Your task to perform on an android device: Open Google Image 0: 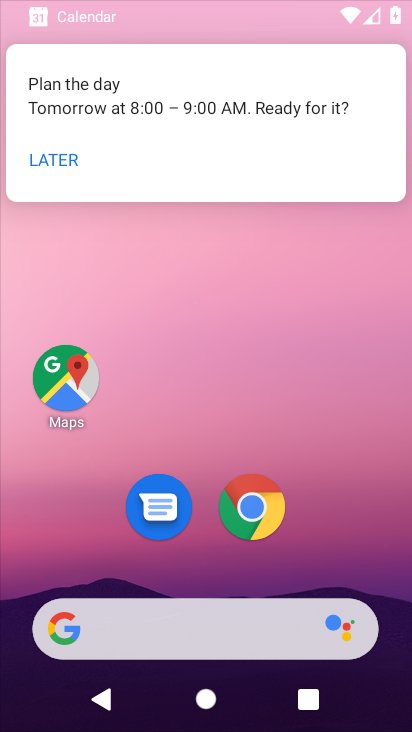
Step 0: drag from (295, 573) to (294, 233)
Your task to perform on an android device: Open Google Image 1: 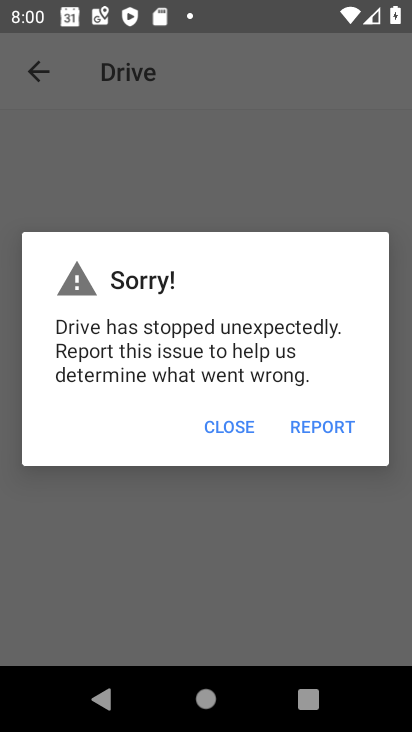
Step 1: click (222, 425)
Your task to perform on an android device: Open Google Image 2: 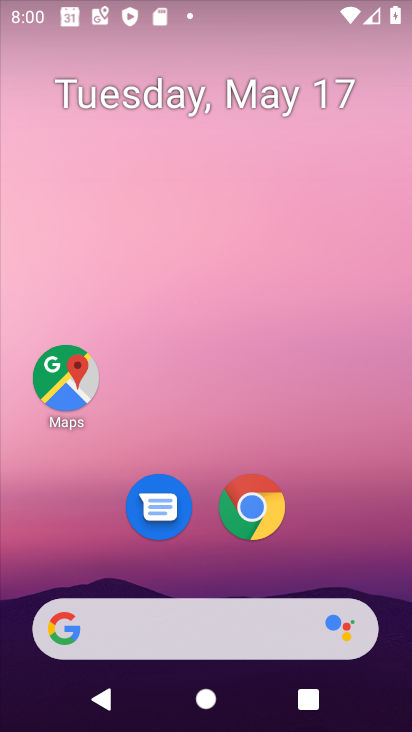
Step 2: drag from (335, 650) to (271, 135)
Your task to perform on an android device: Open Google Image 3: 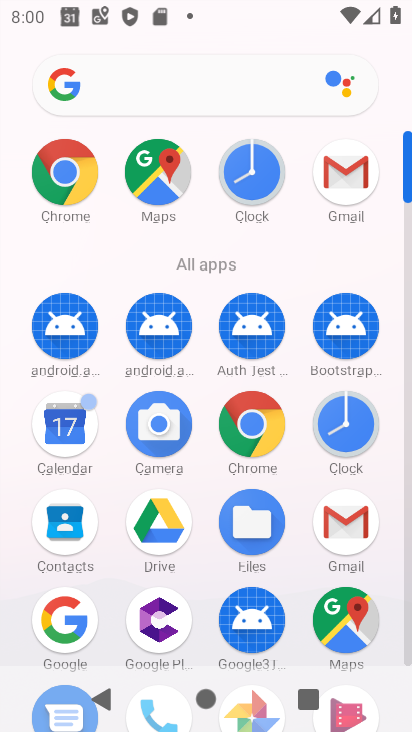
Step 3: click (69, 634)
Your task to perform on an android device: Open Google Image 4: 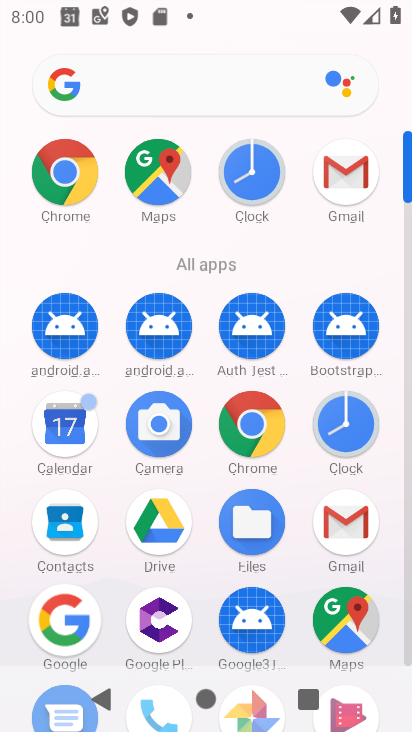
Step 4: click (85, 624)
Your task to perform on an android device: Open Google Image 5: 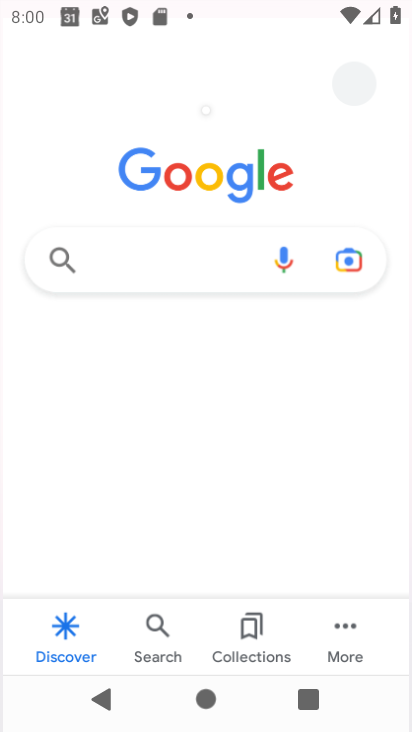
Step 5: click (91, 622)
Your task to perform on an android device: Open Google Image 6: 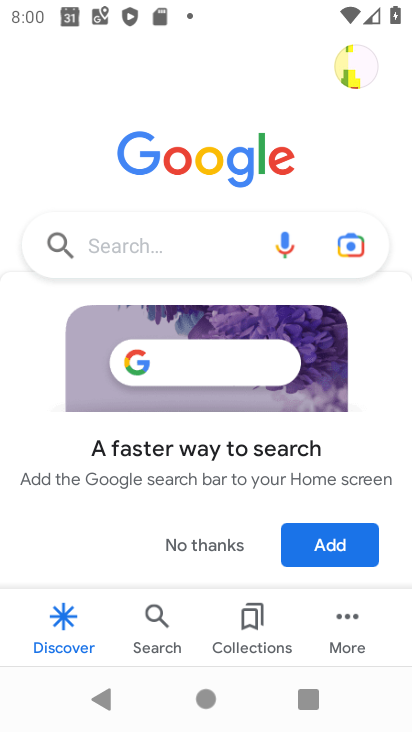
Step 6: task complete